Your task to perform on an android device: Check the news Image 0: 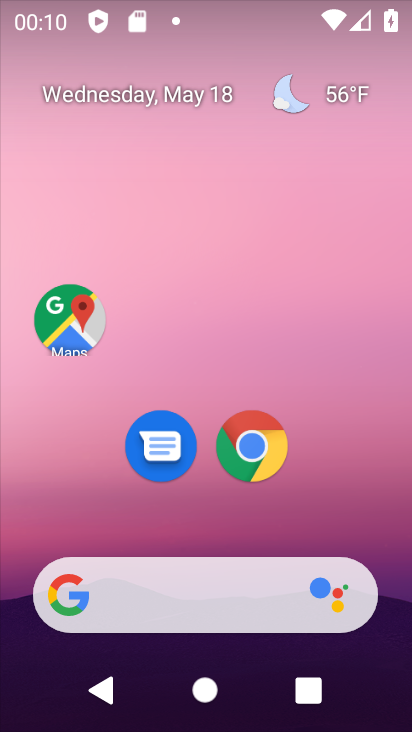
Step 0: drag from (4, 195) to (370, 324)
Your task to perform on an android device: Check the news Image 1: 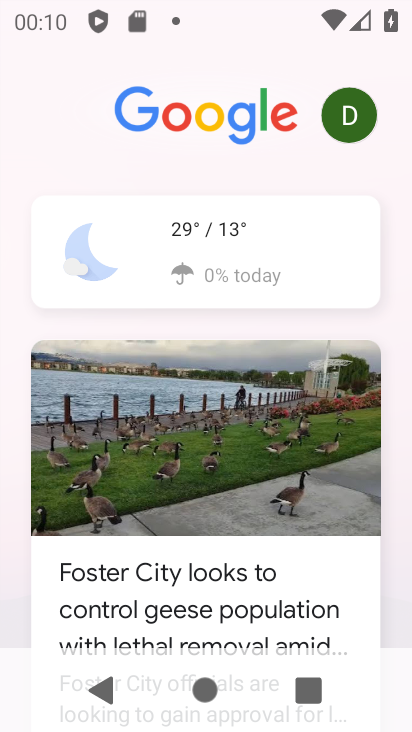
Step 1: task complete